Your task to perform on an android device: Open Youtube and go to "Your channel" Image 0: 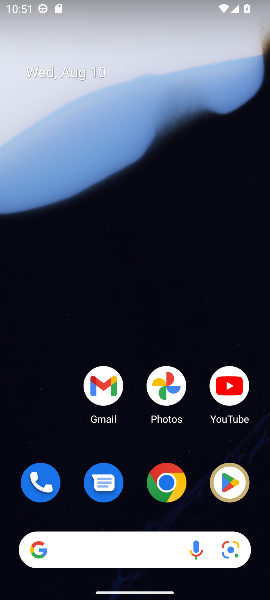
Step 0: drag from (108, 331) to (108, 95)
Your task to perform on an android device: Open Youtube and go to "Your channel" Image 1: 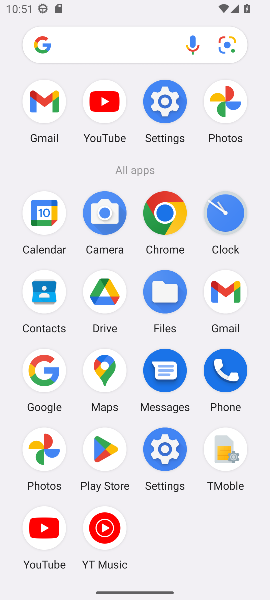
Step 1: click (39, 530)
Your task to perform on an android device: Open Youtube and go to "Your channel" Image 2: 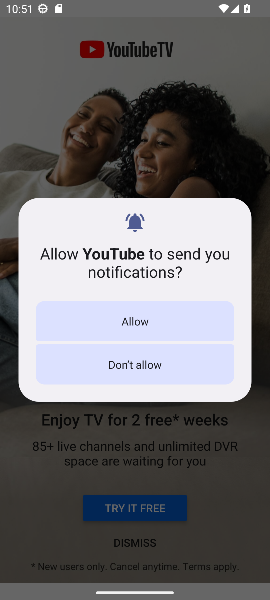
Step 2: click (144, 317)
Your task to perform on an android device: Open Youtube and go to "Your channel" Image 3: 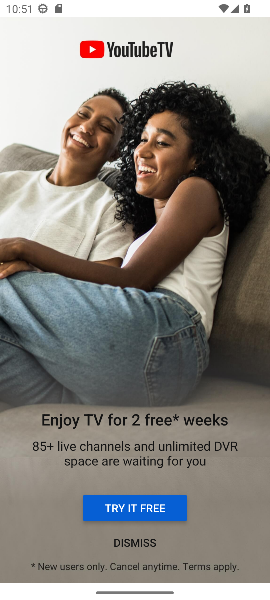
Step 3: task complete